Your task to perform on an android device: turn off improve location accuracy Image 0: 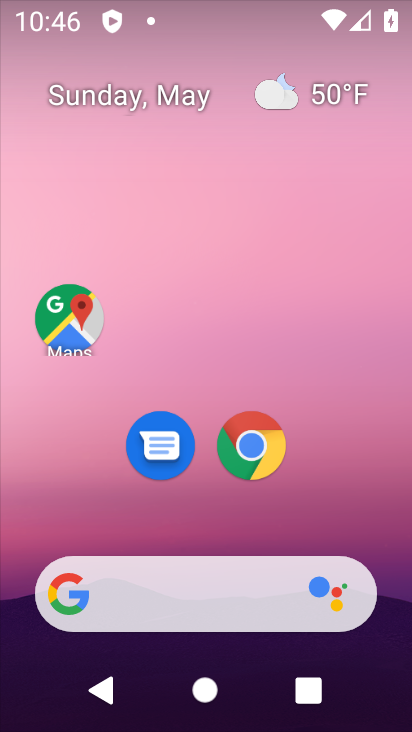
Step 0: drag from (193, 525) to (241, 7)
Your task to perform on an android device: turn off improve location accuracy Image 1: 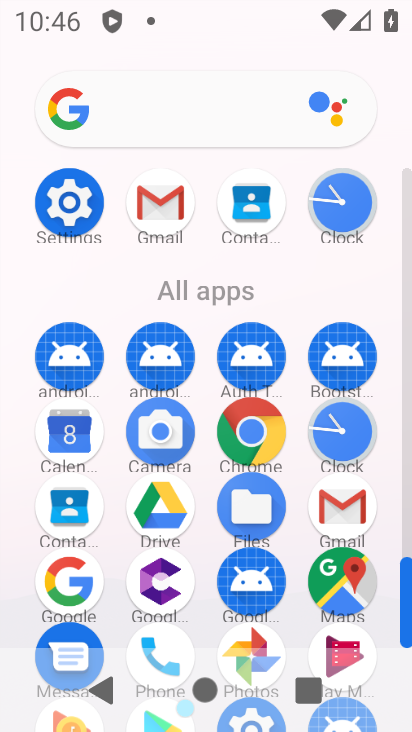
Step 1: click (79, 187)
Your task to perform on an android device: turn off improve location accuracy Image 2: 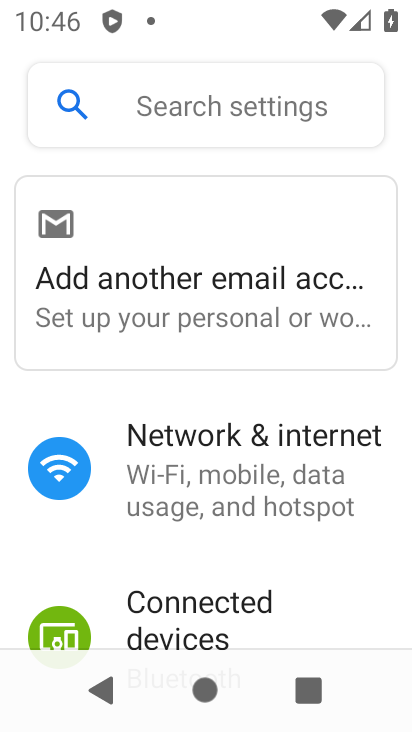
Step 2: drag from (219, 481) to (248, 169)
Your task to perform on an android device: turn off improve location accuracy Image 3: 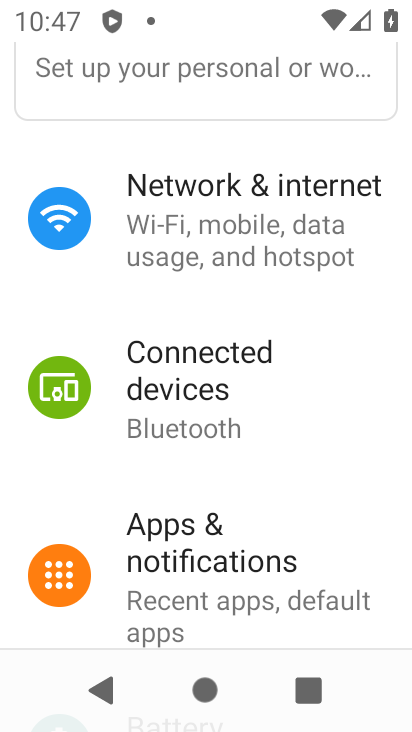
Step 3: drag from (231, 517) to (254, 120)
Your task to perform on an android device: turn off improve location accuracy Image 4: 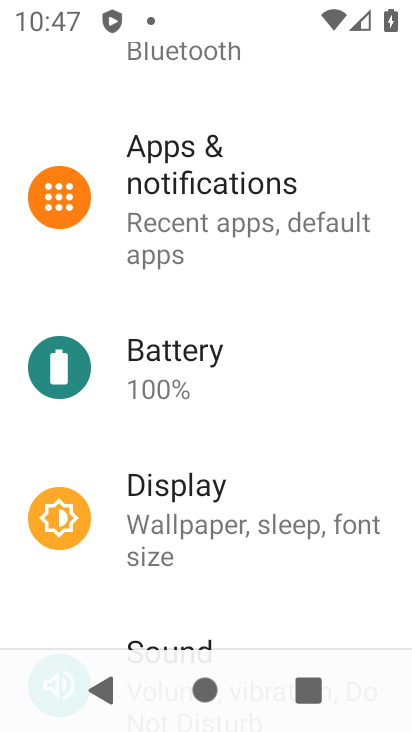
Step 4: drag from (182, 544) to (257, 60)
Your task to perform on an android device: turn off improve location accuracy Image 5: 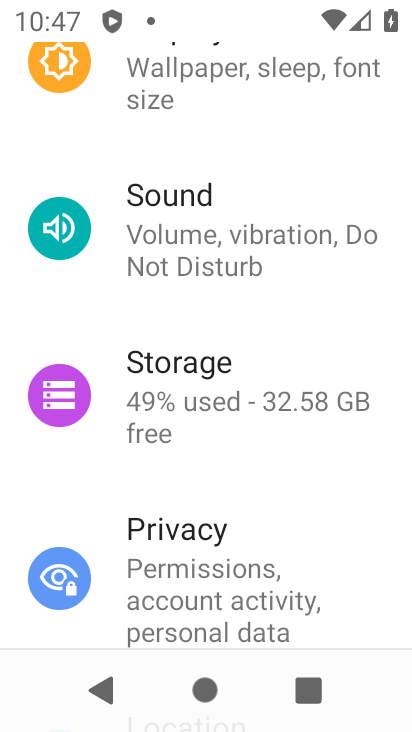
Step 5: drag from (236, 549) to (287, 129)
Your task to perform on an android device: turn off improve location accuracy Image 6: 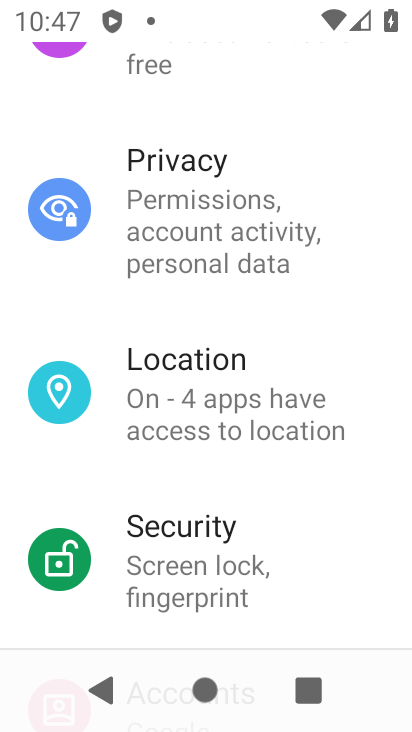
Step 6: click (205, 424)
Your task to perform on an android device: turn off improve location accuracy Image 7: 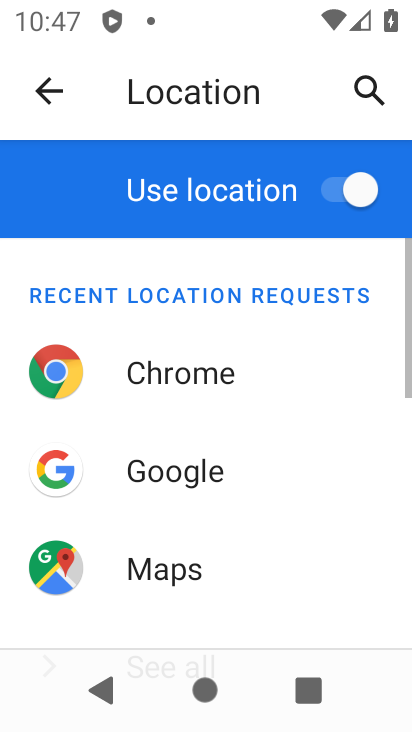
Step 7: drag from (219, 498) to (262, 177)
Your task to perform on an android device: turn off improve location accuracy Image 8: 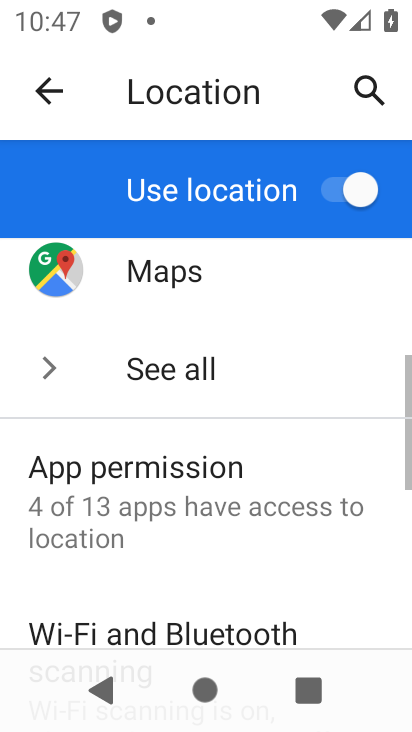
Step 8: drag from (233, 603) to (248, 302)
Your task to perform on an android device: turn off improve location accuracy Image 9: 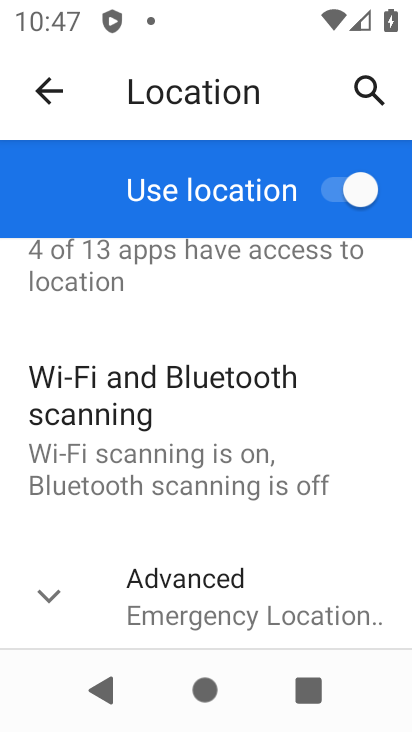
Step 9: click (211, 588)
Your task to perform on an android device: turn off improve location accuracy Image 10: 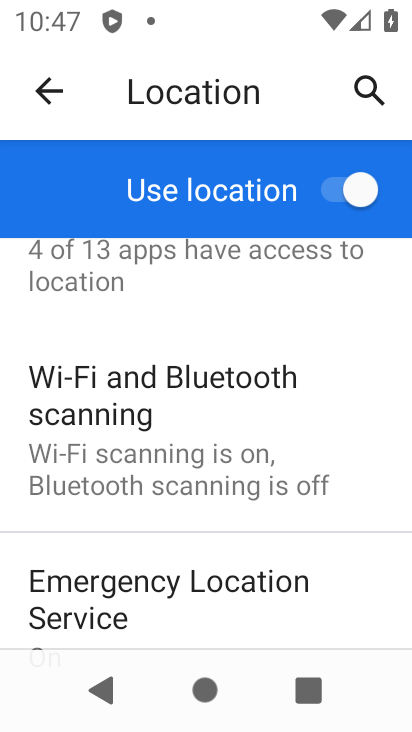
Step 10: drag from (143, 555) to (175, 372)
Your task to perform on an android device: turn off improve location accuracy Image 11: 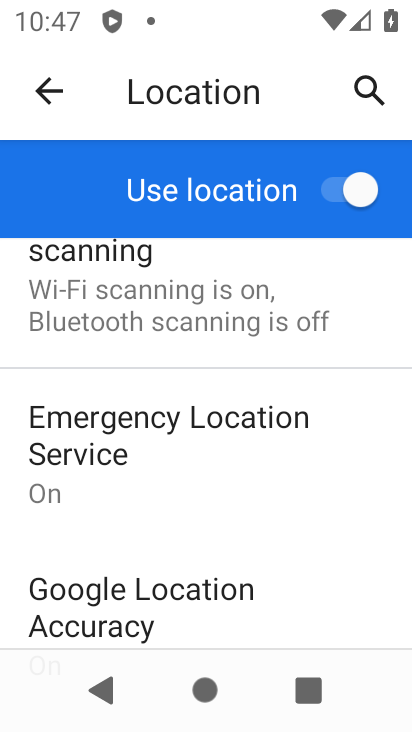
Step 11: drag from (184, 565) to (200, 308)
Your task to perform on an android device: turn off improve location accuracy Image 12: 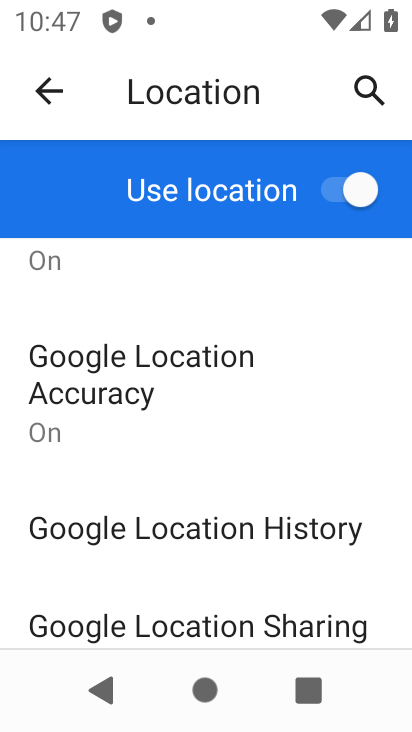
Step 12: click (154, 409)
Your task to perform on an android device: turn off improve location accuracy Image 13: 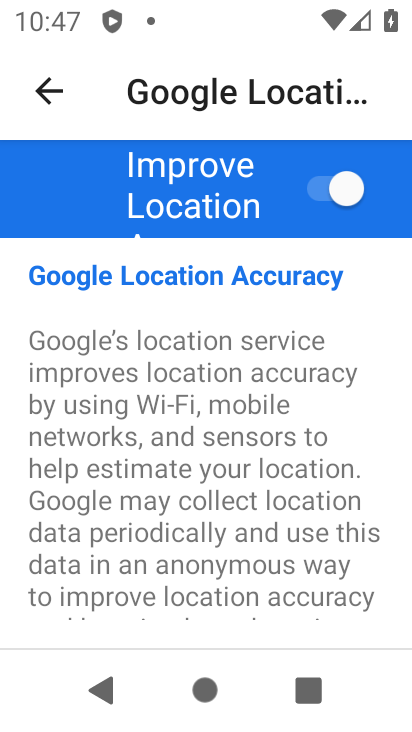
Step 13: click (332, 175)
Your task to perform on an android device: turn off improve location accuracy Image 14: 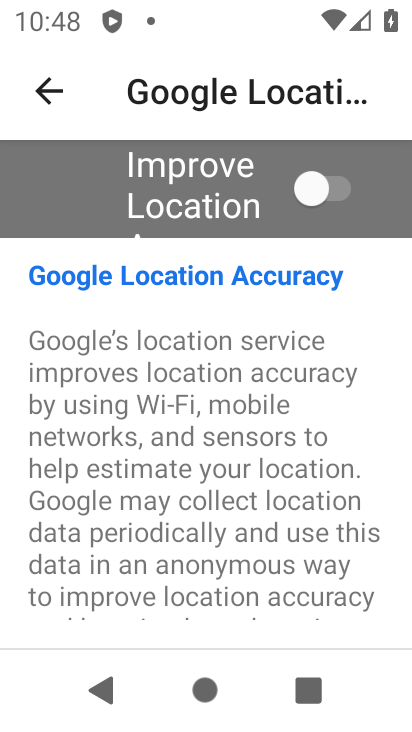
Step 14: task complete